Your task to perform on an android device: change notifications settings Image 0: 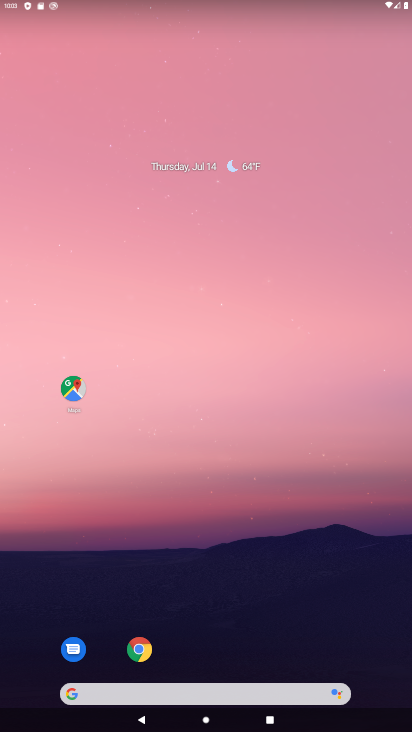
Step 0: drag from (290, 626) to (276, 4)
Your task to perform on an android device: change notifications settings Image 1: 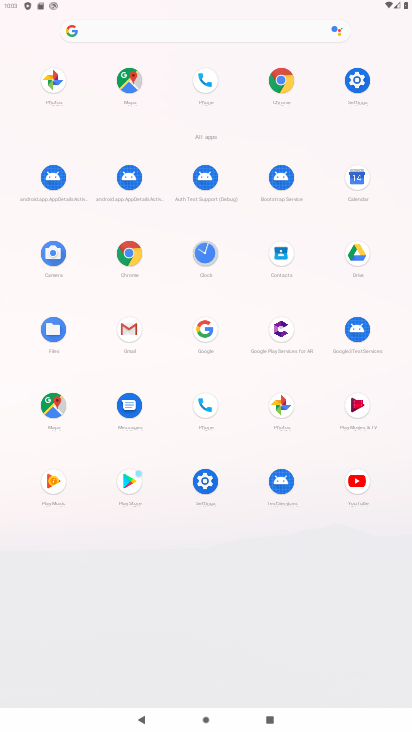
Step 1: click (208, 479)
Your task to perform on an android device: change notifications settings Image 2: 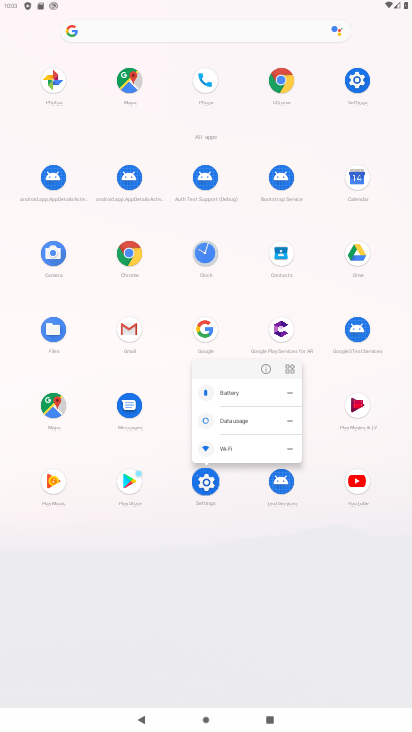
Step 2: click (208, 479)
Your task to perform on an android device: change notifications settings Image 3: 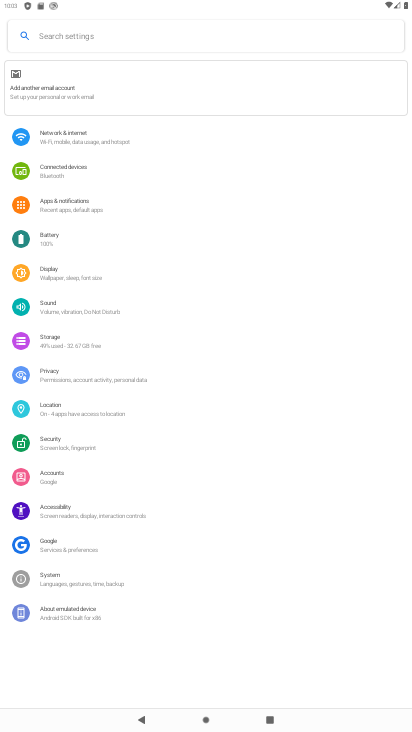
Step 3: click (47, 198)
Your task to perform on an android device: change notifications settings Image 4: 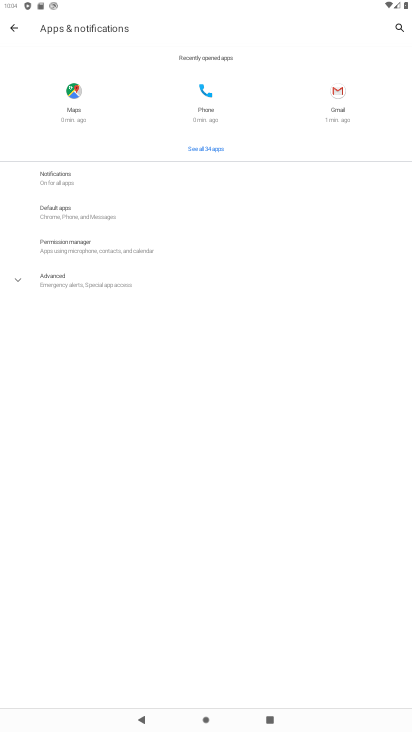
Step 4: click (75, 176)
Your task to perform on an android device: change notifications settings Image 5: 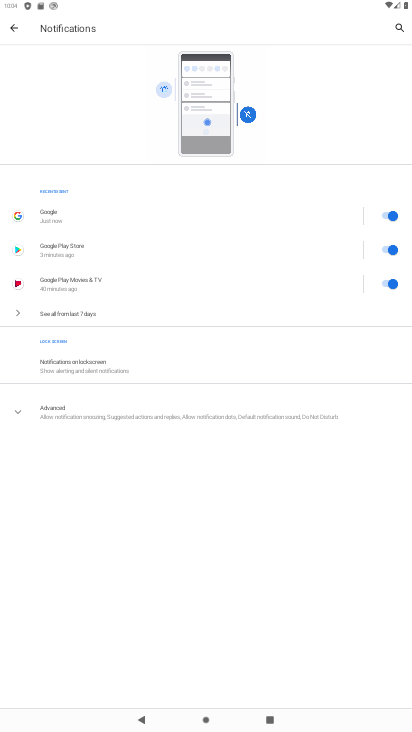
Step 5: click (67, 405)
Your task to perform on an android device: change notifications settings Image 6: 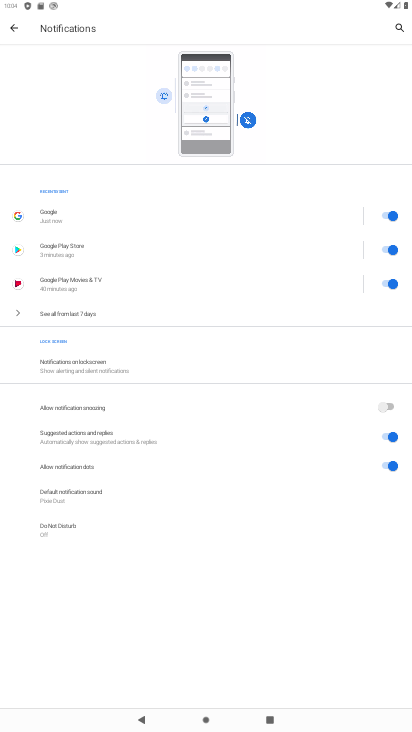
Step 6: click (398, 431)
Your task to perform on an android device: change notifications settings Image 7: 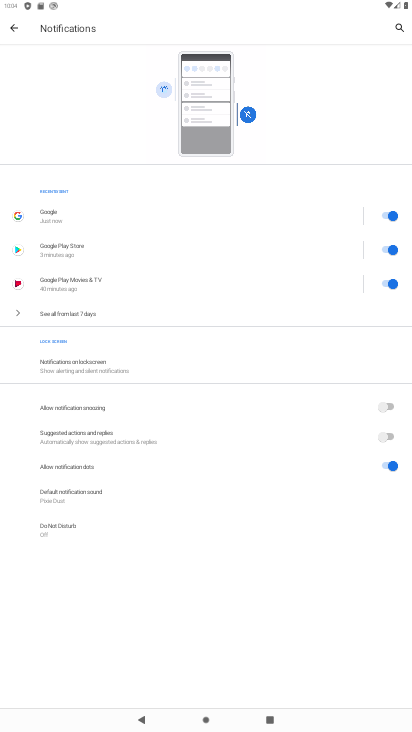
Step 7: task complete